Your task to perform on an android device: delete the emails in spam in the gmail app Image 0: 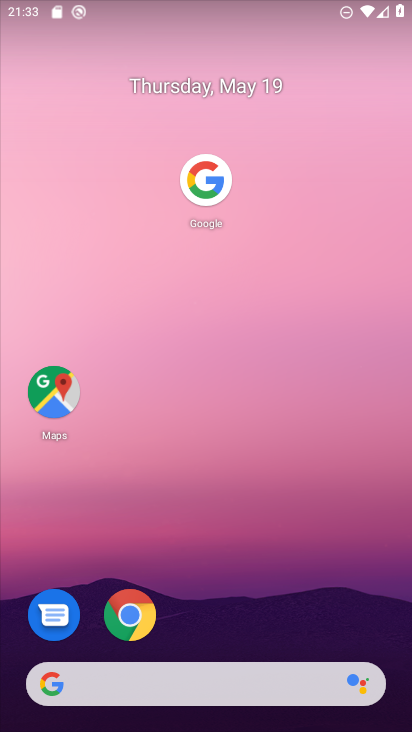
Step 0: drag from (241, 592) to (284, 105)
Your task to perform on an android device: delete the emails in spam in the gmail app Image 1: 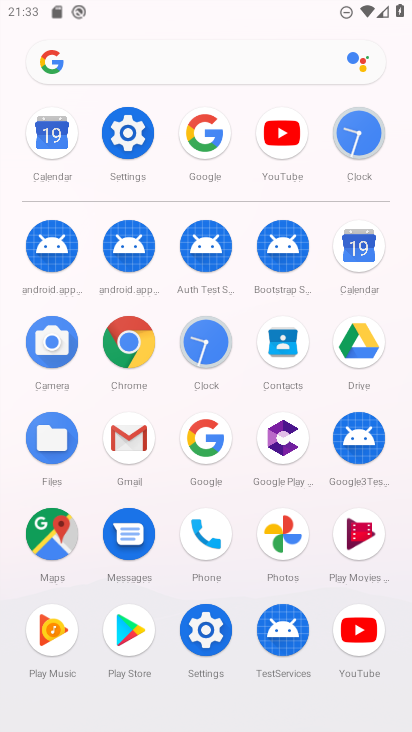
Step 1: click (126, 435)
Your task to perform on an android device: delete the emails in spam in the gmail app Image 2: 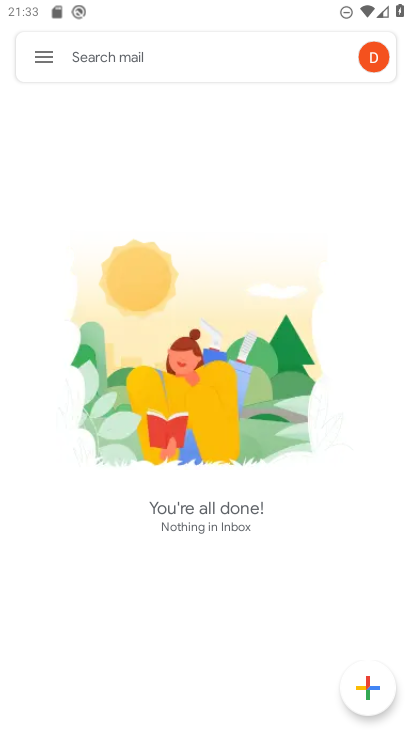
Step 2: click (52, 60)
Your task to perform on an android device: delete the emails in spam in the gmail app Image 3: 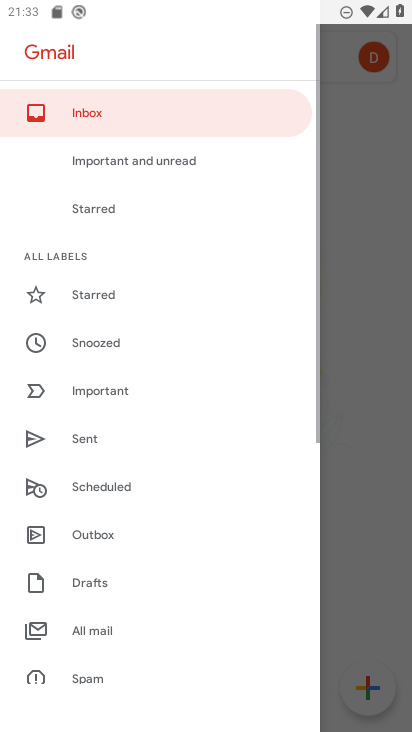
Step 3: drag from (139, 594) to (160, 224)
Your task to perform on an android device: delete the emails in spam in the gmail app Image 4: 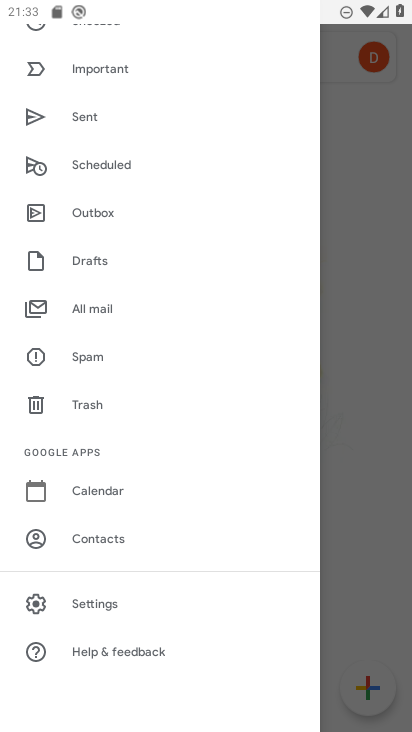
Step 4: click (98, 355)
Your task to perform on an android device: delete the emails in spam in the gmail app Image 5: 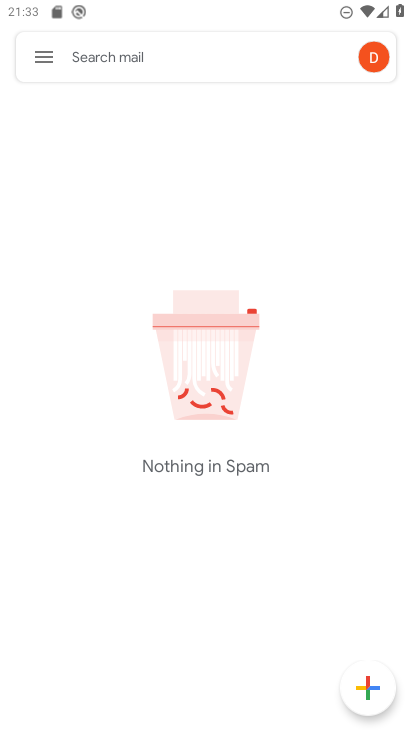
Step 5: task complete